Your task to perform on an android device: turn off smart reply in the gmail app Image 0: 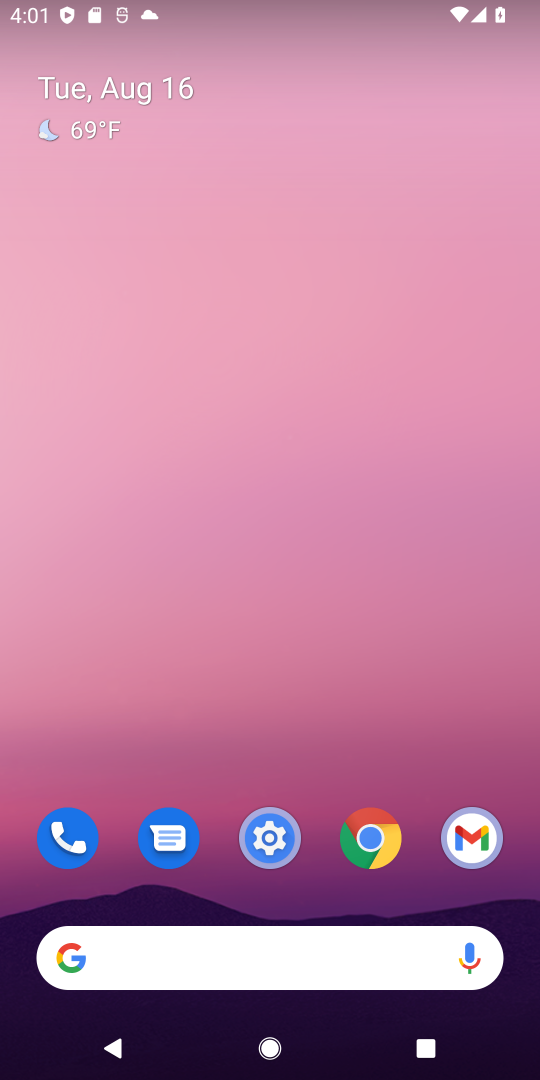
Step 0: drag from (244, 982) to (306, 88)
Your task to perform on an android device: turn off smart reply in the gmail app Image 1: 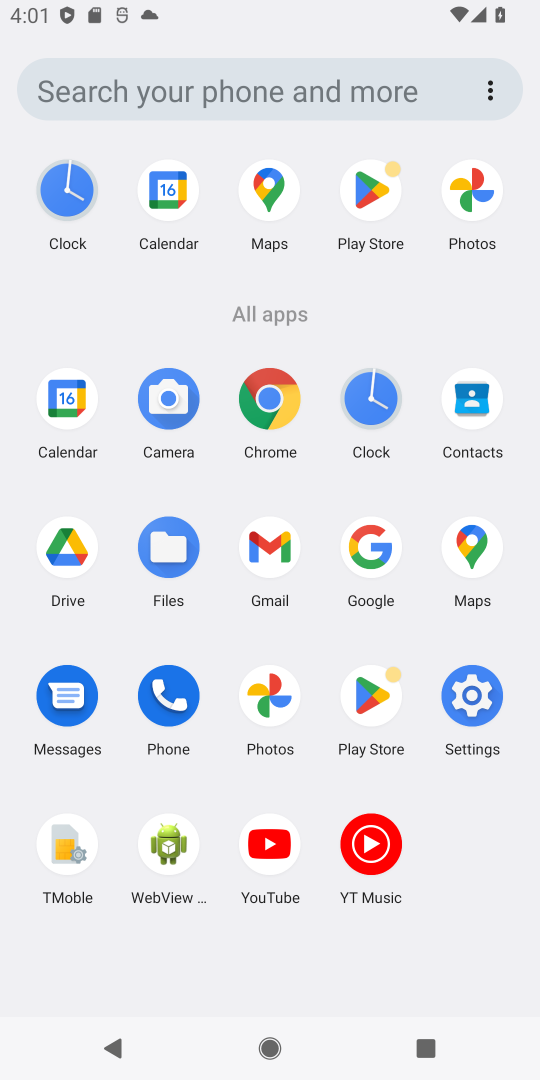
Step 1: click (260, 533)
Your task to perform on an android device: turn off smart reply in the gmail app Image 2: 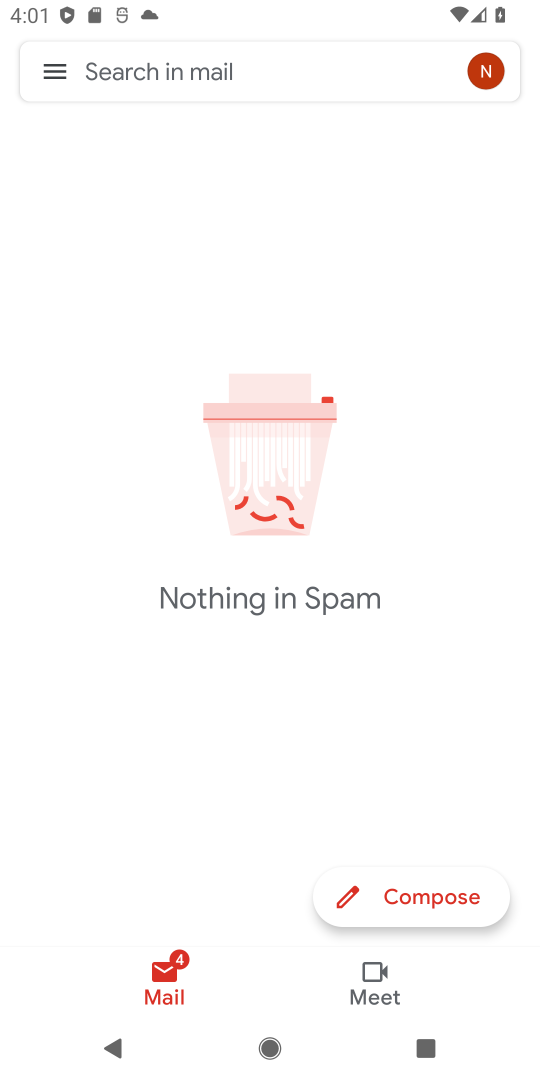
Step 2: click (46, 71)
Your task to perform on an android device: turn off smart reply in the gmail app Image 3: 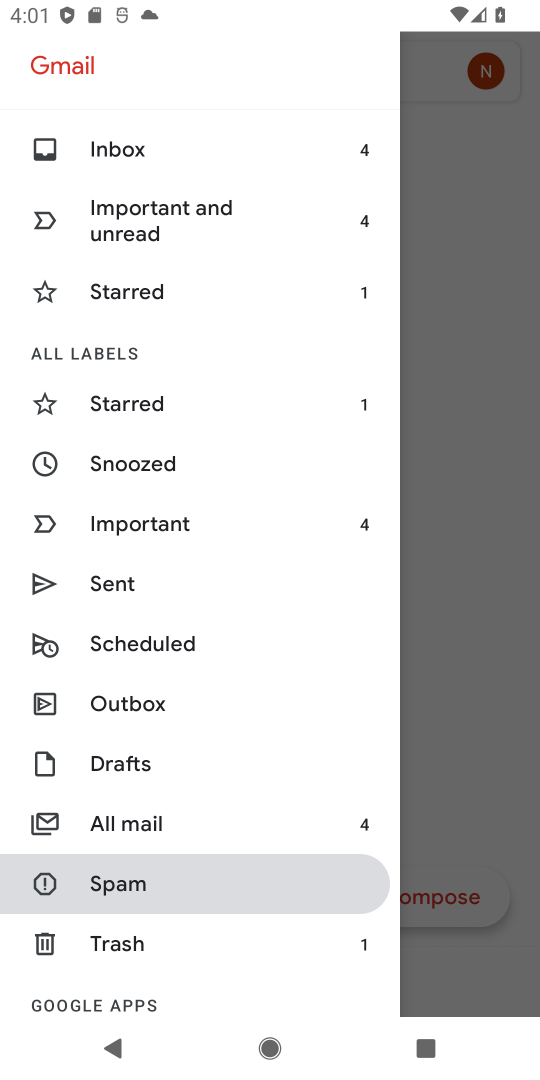
Step 3: drag from (189, 917) to (211, 65)
Your task to perform on an android device: turn off smart reply in the gmail app Image 4: 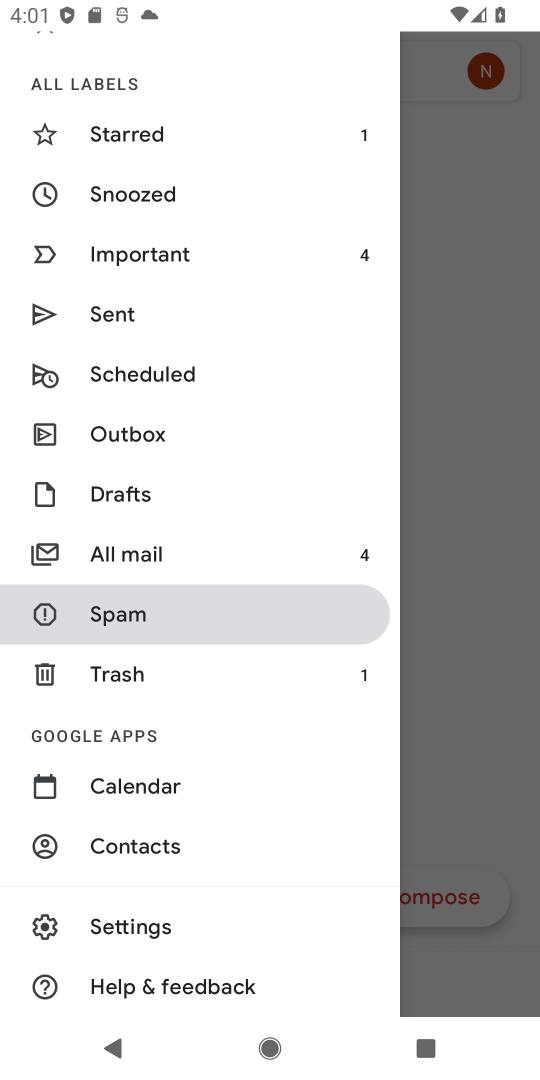
Step 4: click (114, 930)
Your task to perform on an android device: turn off smart reply in the gmail app Image 5: 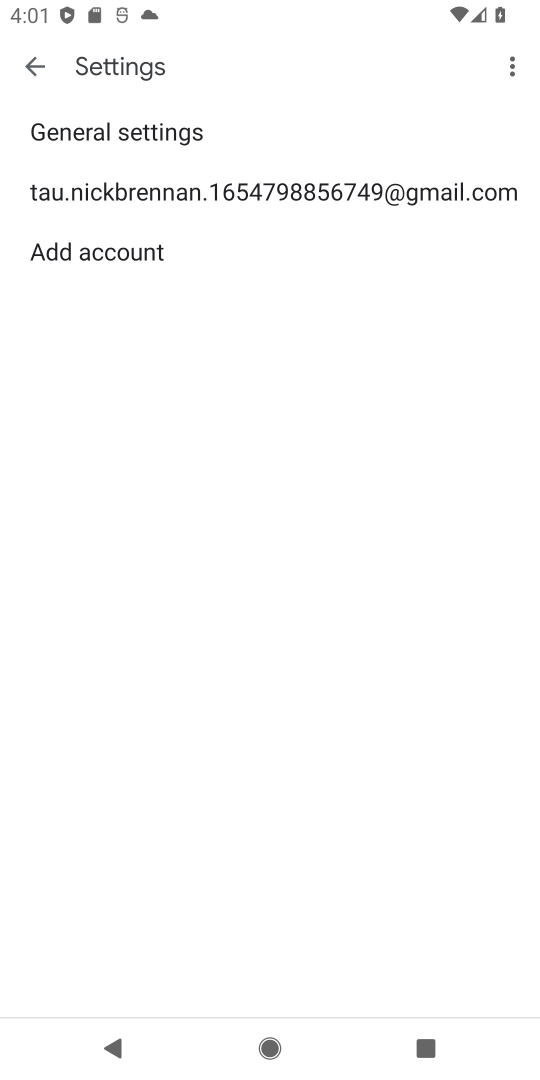
Step 5: click (139, 197)
Your task to perform on an android device: turn off smart reply in the gmail app Image 6: 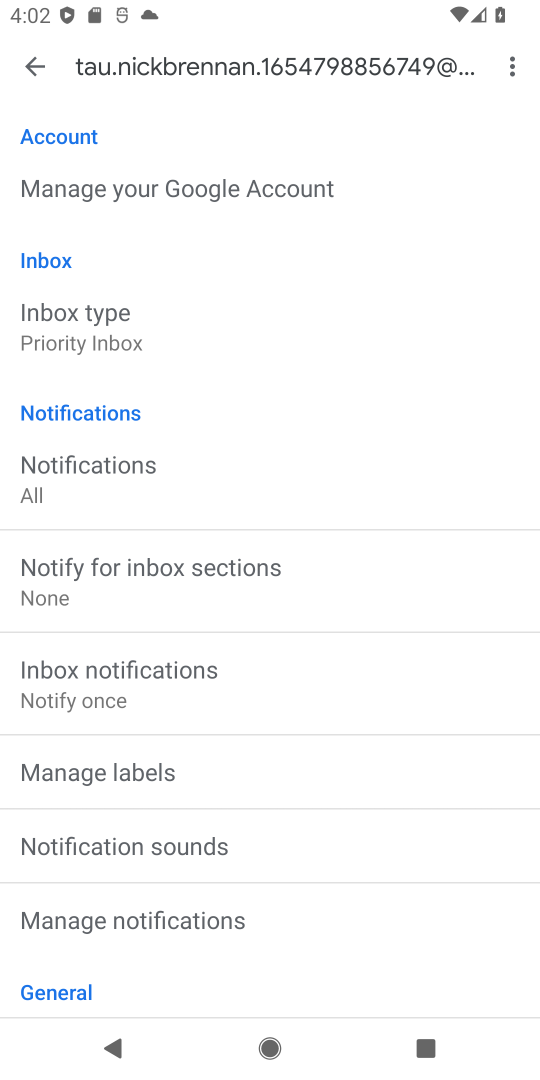
Step 6: task complete